Your task to perform on an android device: Open Reddit.com Image 0: 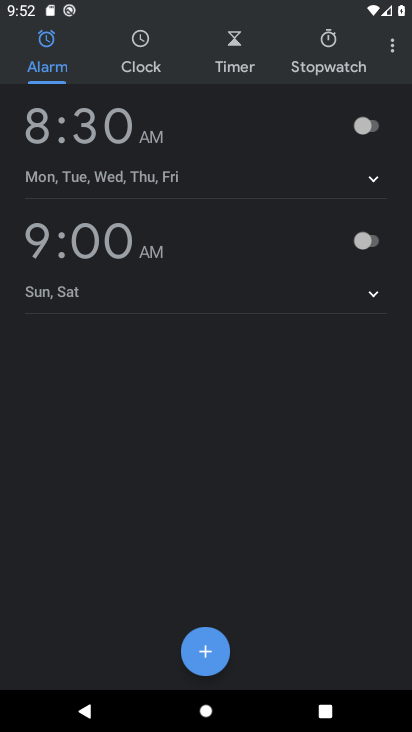
Step 0: press home button
Your task to perform on an android device: Open Reddit.com Image 1: 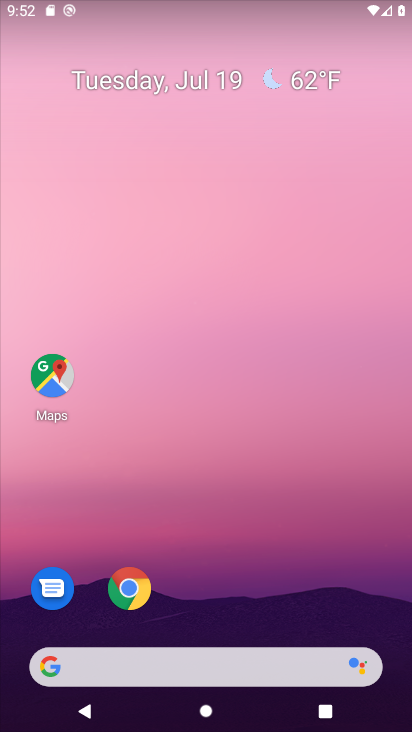
Step 1: click (128, 585)
Your task to perform on an android device: Open Reddit.com Image 2: 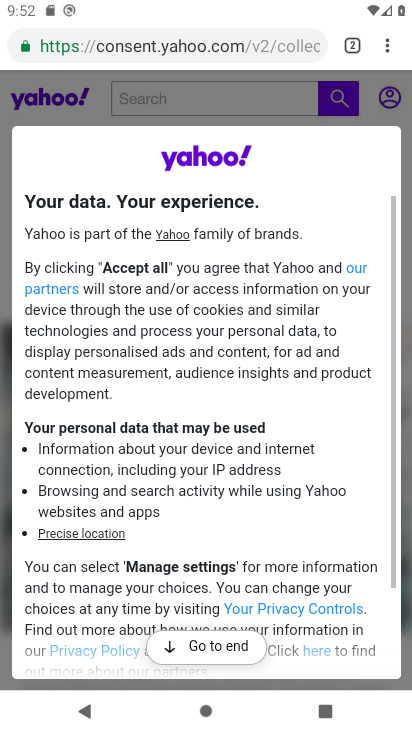
Step 2: click (243, 49)
Your task to perform on an android device: Open Reddit.com Image 3: 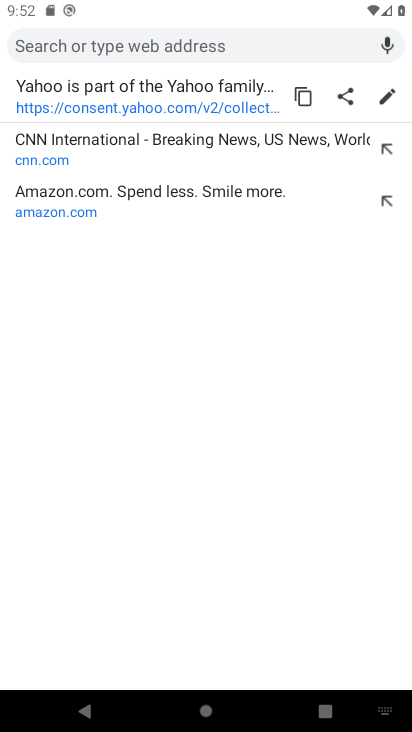
Step 3: type "www.reddit.com"
Your task to perform on an android device: Open Reddit.com Image 4: 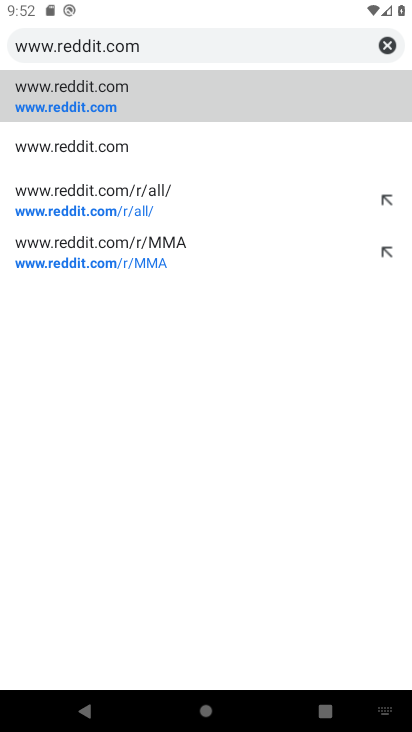
Step 4: click (81, 102)
Your task to perform on an android device: Open Reddit.com Image 5: 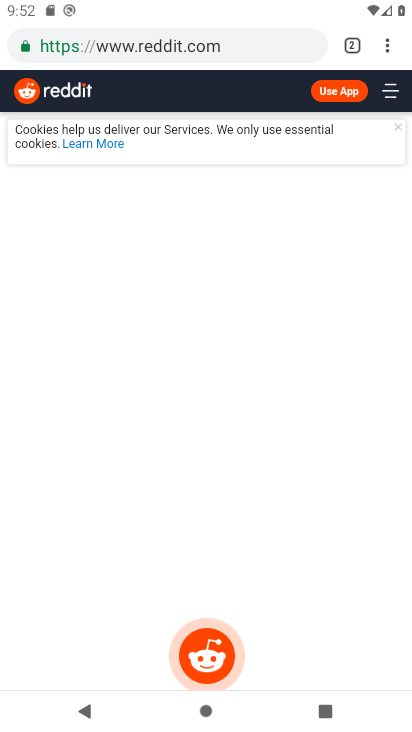
Step 5: task complete